Your task to perform on an android device: Open the Play Movies app and select the watchlist tab. Image 0: 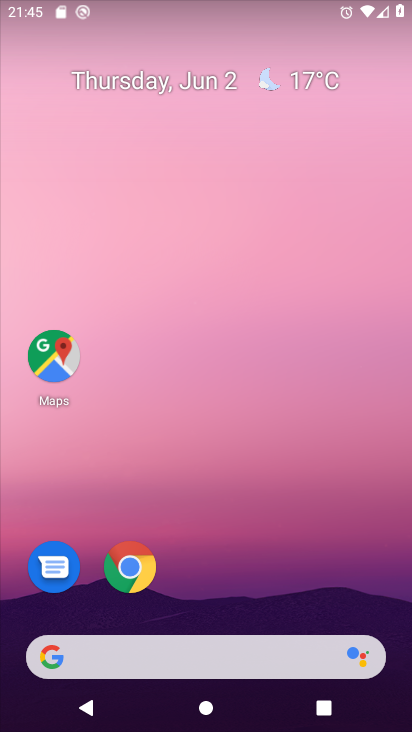
Step 0: drag from (233, 618) to (392, 9)
Your task to perform on an android device: Open the Play Movies app and select the watchlist tab. Image 1: 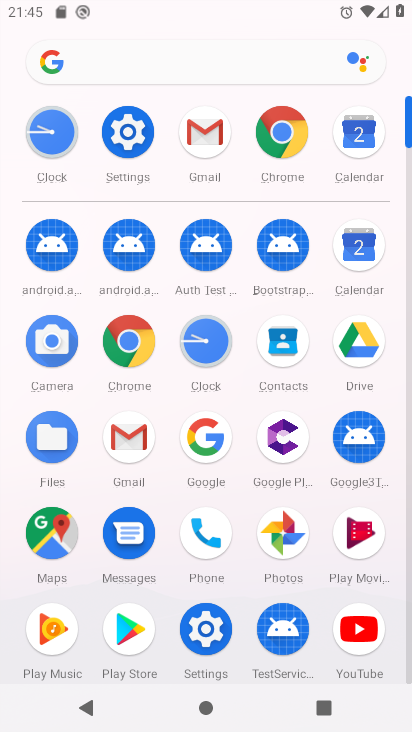
Step 1: click (361, 520)
Your task to perform on an android device: Open the Play Movies app and select the watchlist tab. Image 2: 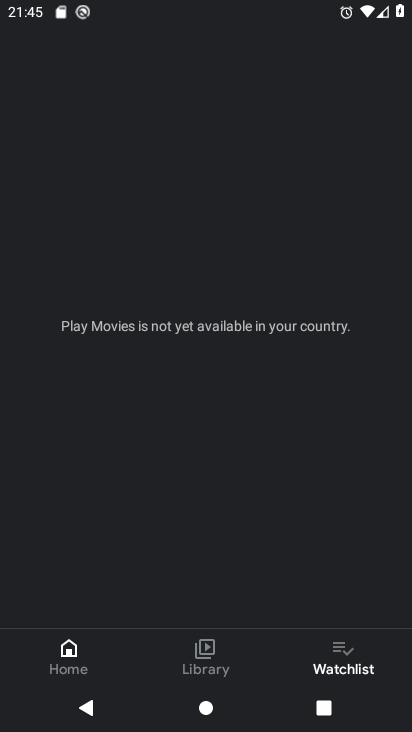
Step 2: click (353, 659)
Your task to perform on an android device: Open the Play Movies app and select the watchlist tab. Image 3: 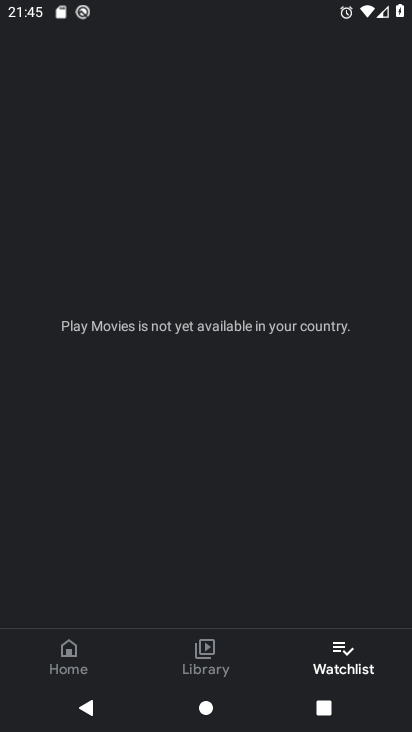
Step 3: task complete